Your task to perform on an android device: Search for a nice rug on Crate & Barrel Image 0: 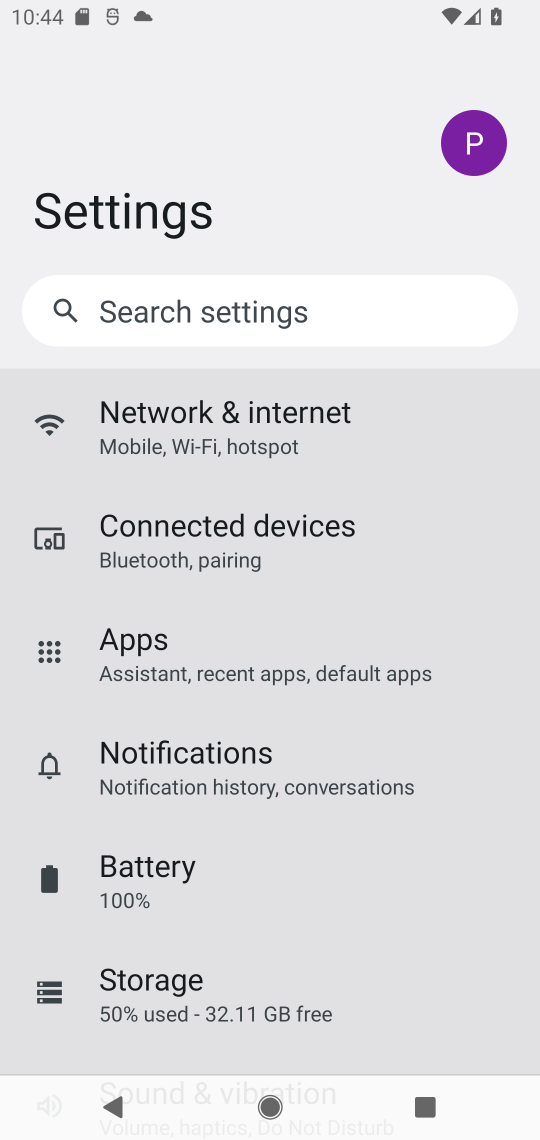
Step 0: press home button
Your task to perform on an android device: Search for a nice rug on Crate & Barrel Image 1: 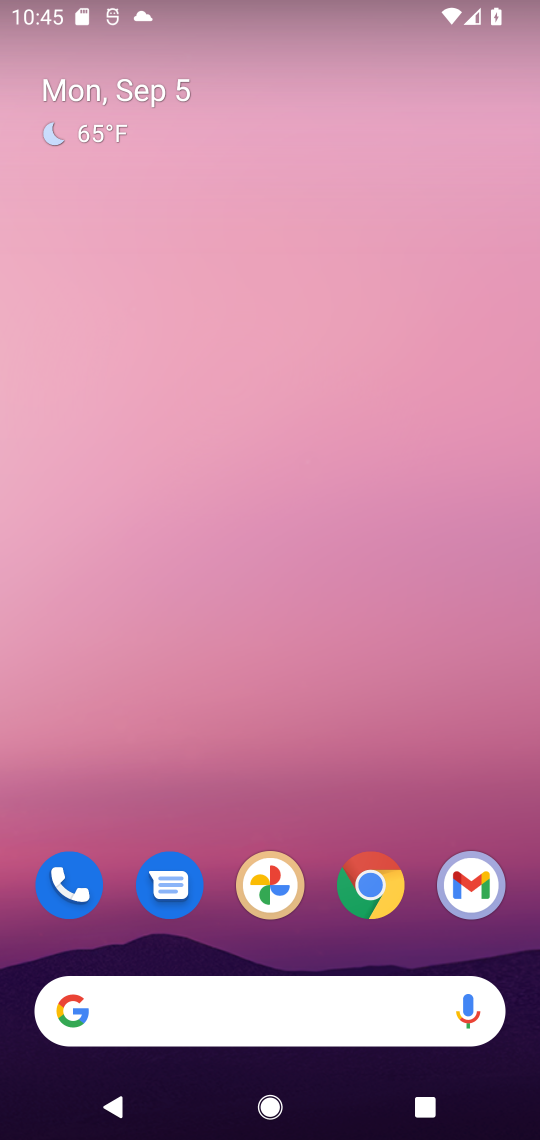
Step 1: click (375, 887)
Your task to perform on an android device: Search for a nice rug on Crate & Barrel Image 2: 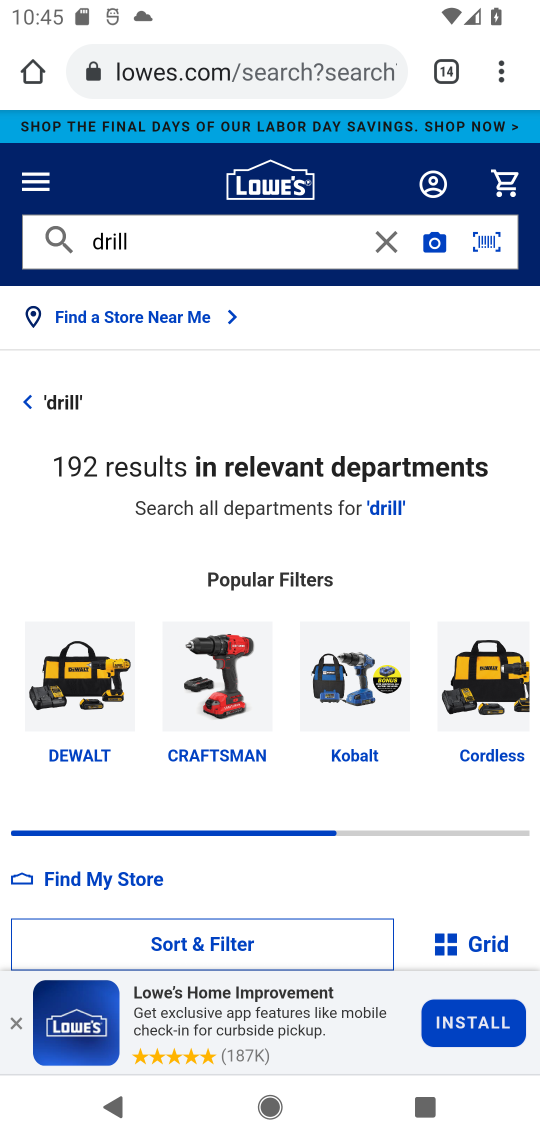
Step 2: click (500, 79)
Your task to perform on an android device: Search for a nice rug on Crate & Barrel Image 3: 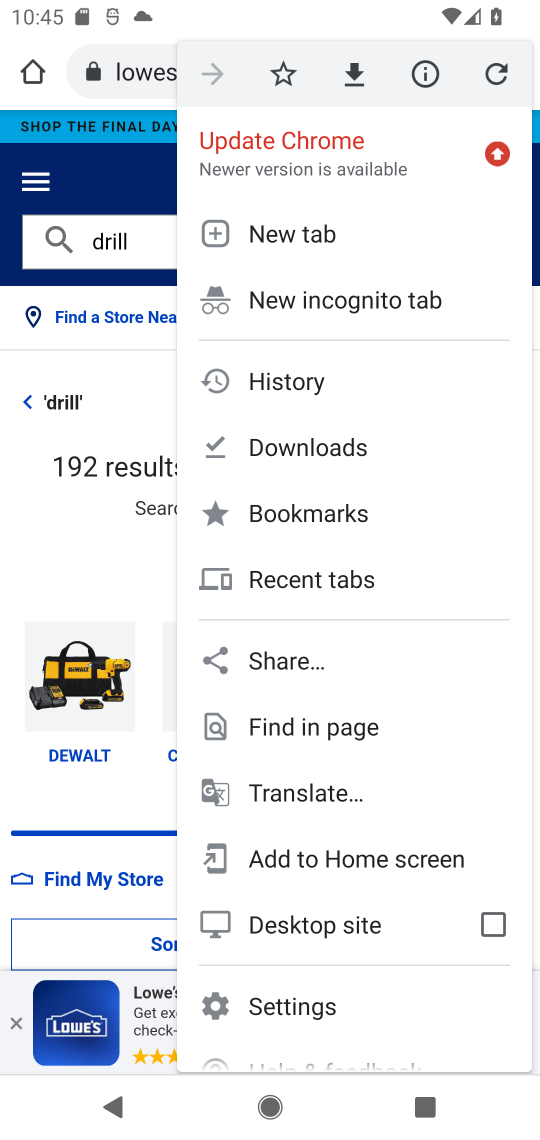
Step 3: click (319, 228)
Your task to perform on an android device: Search for a nice rug on Crate & Barrel Image 4: 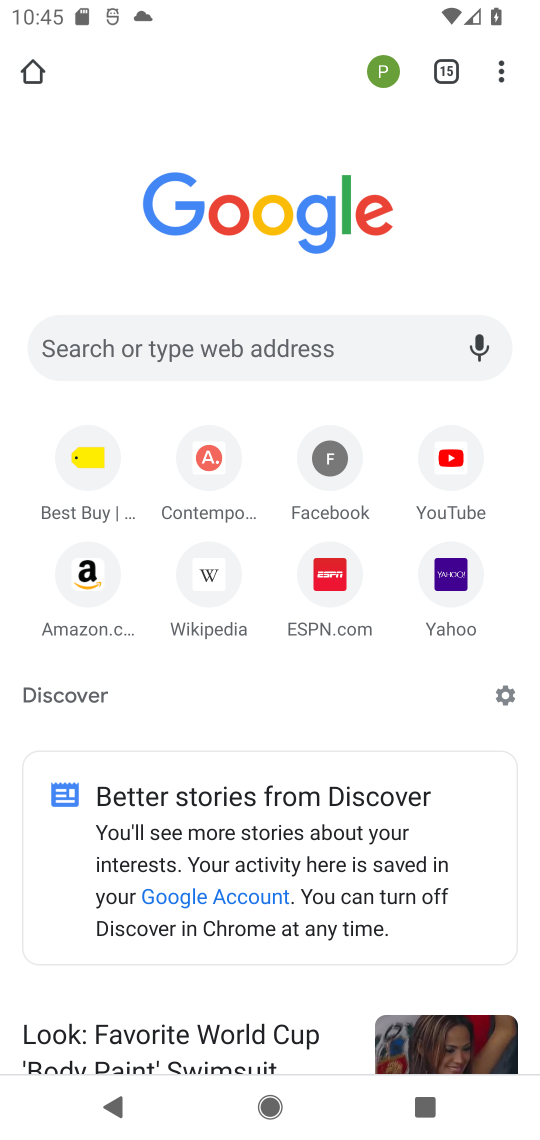
Step 4: click (254, 335)
Your task to perform on an android device: Search for a nice rug on Crate & Barrel Image 5: 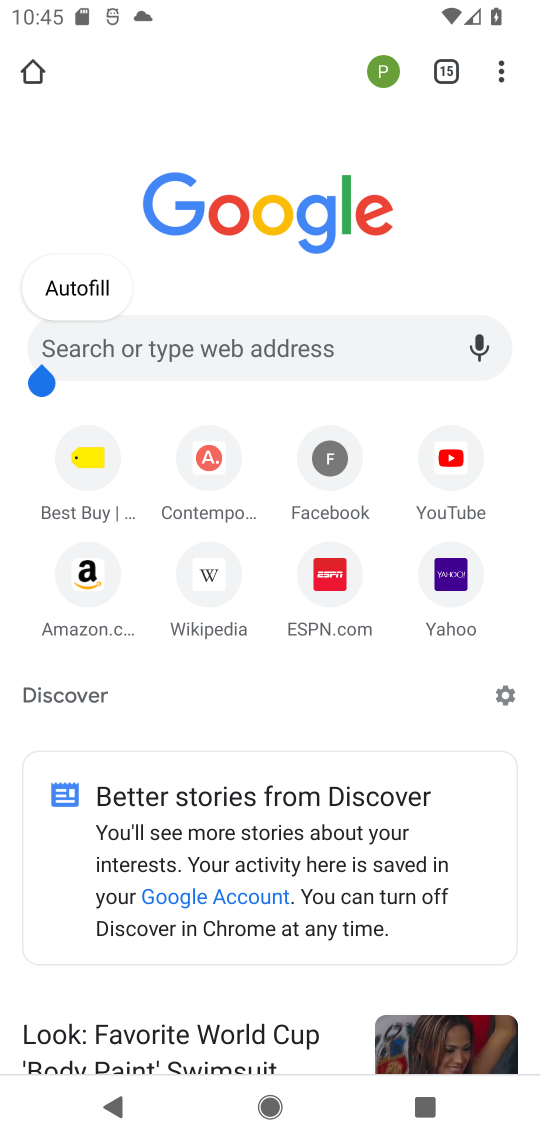
Step 5: click (278, 338)
Your task to perform on an android device: Search for a nice rug on Crate & Barrel Image 6: 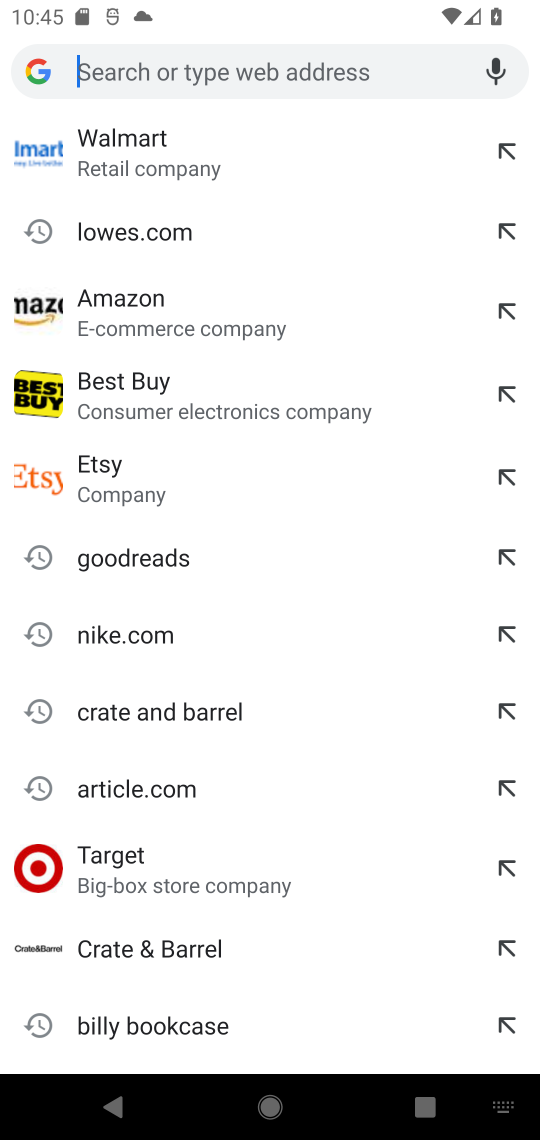
Step 6: type "Crate & Barrel"
Your task to perform on an android device: Search for a nice rug on Crate & Barrel Image 7: 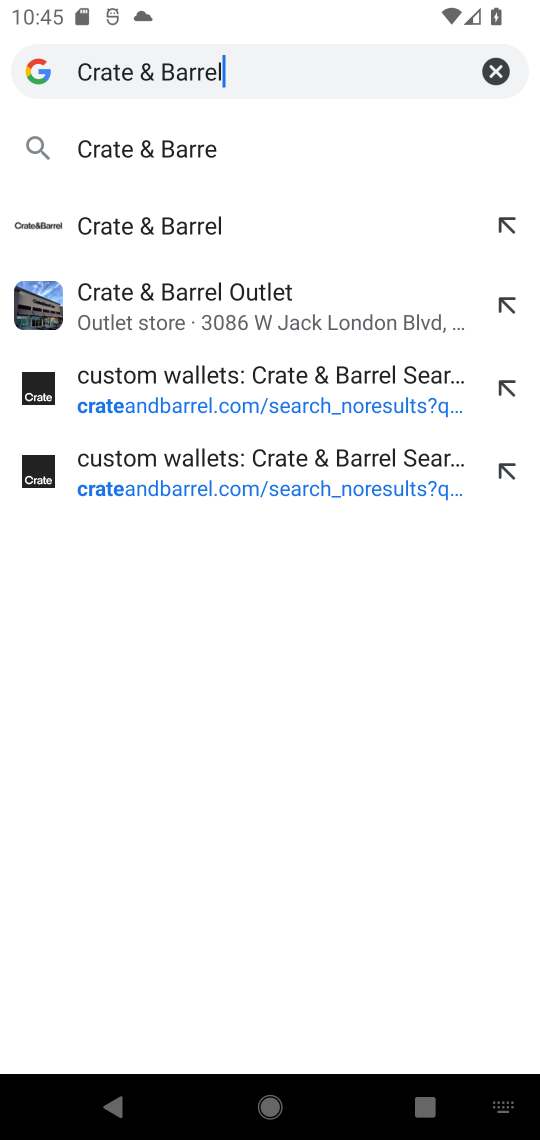
Step 7: type ""
Your task to perform on an android device: Search for a nice rug on Crate & Barrel Image 8: 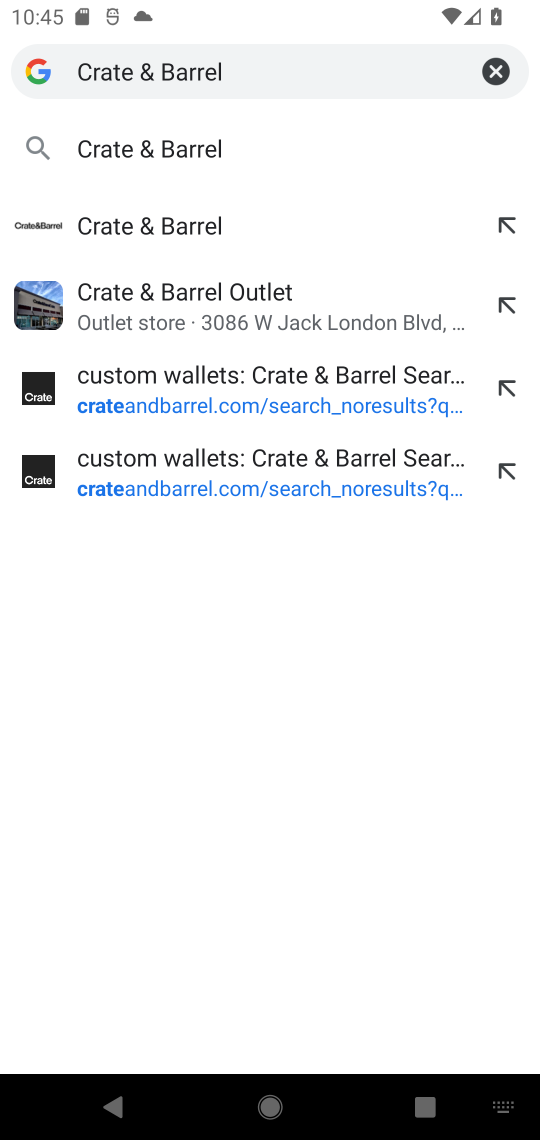
Step 8: click (146, 163)
Your task to perform on an android device: Search for a nice rug on Crate & Barrel Image 9: 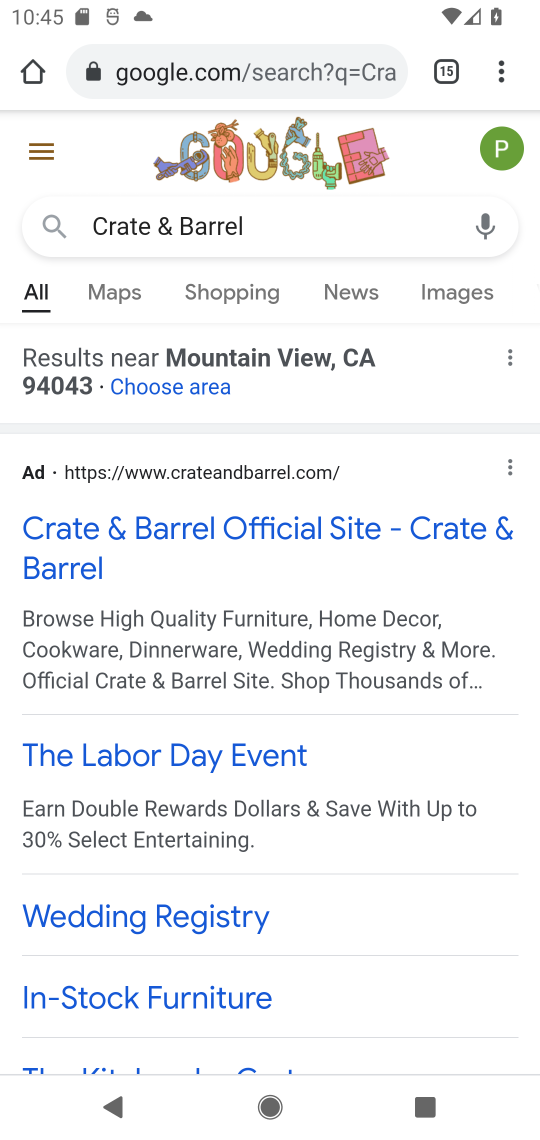
Step 9: click (181, 523)
Your task to perform on an android device: Search for a nice rug on Crate & Barrel Image 10: 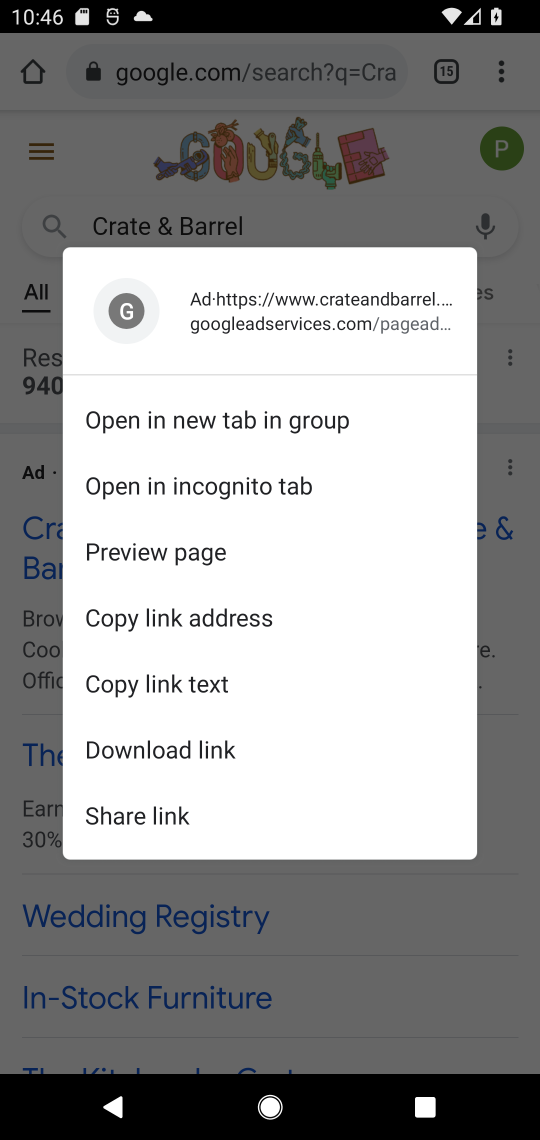
Step 10: click (410, 956)
Your task to perform on an android device: Search for a nice rug on Crate & Barrel Image 11: 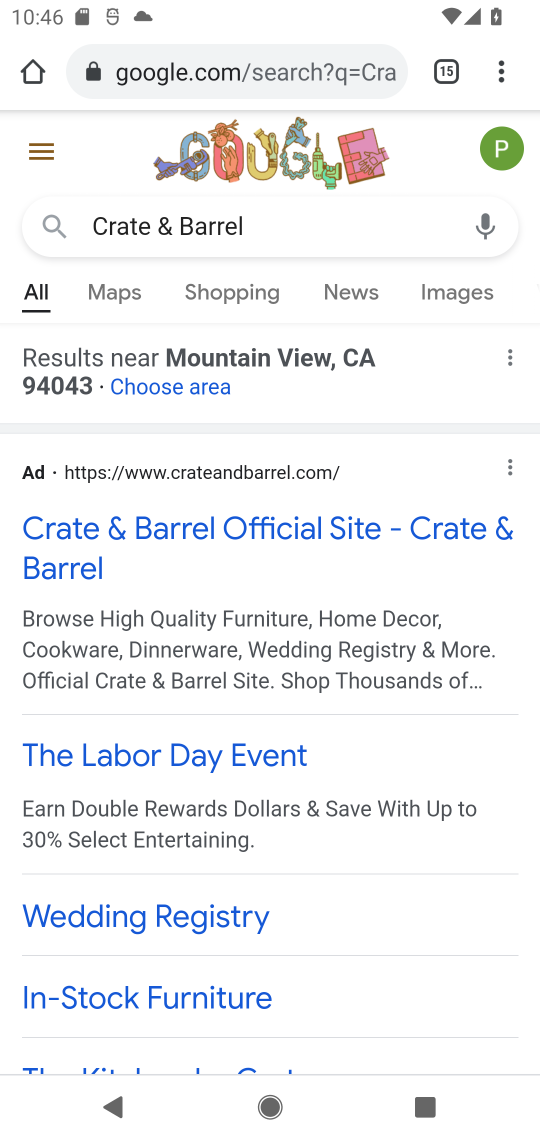
Step 11: click (112, 530)
Your task to perform on an android device: Search for a nice rug on Crate & Barrel Image 12: 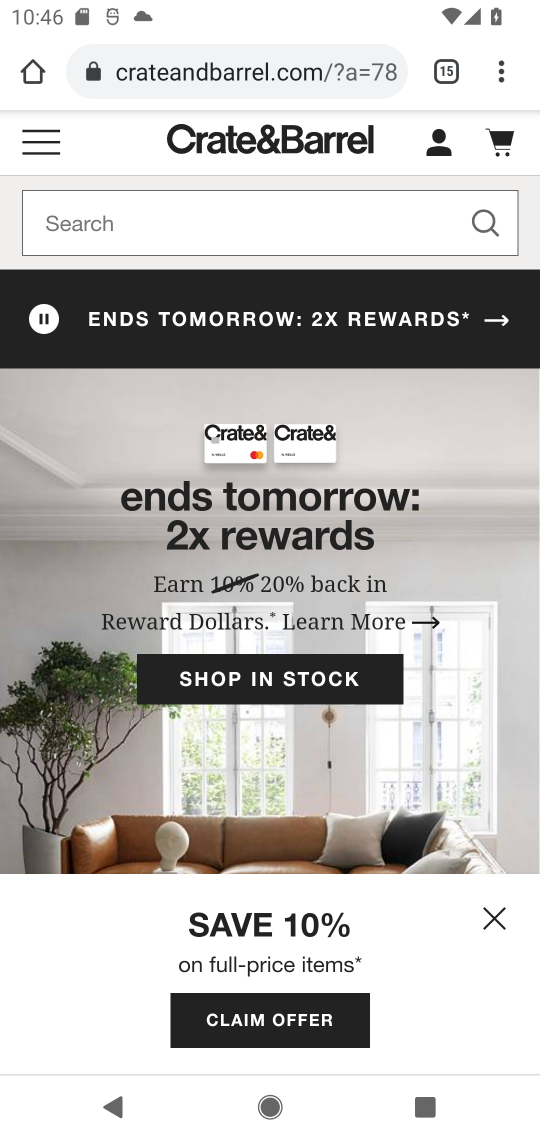
Step 12: click (181, 232)
Your task to perform on an android device: Search for a nice rug on Crate & Barrel Image 13: 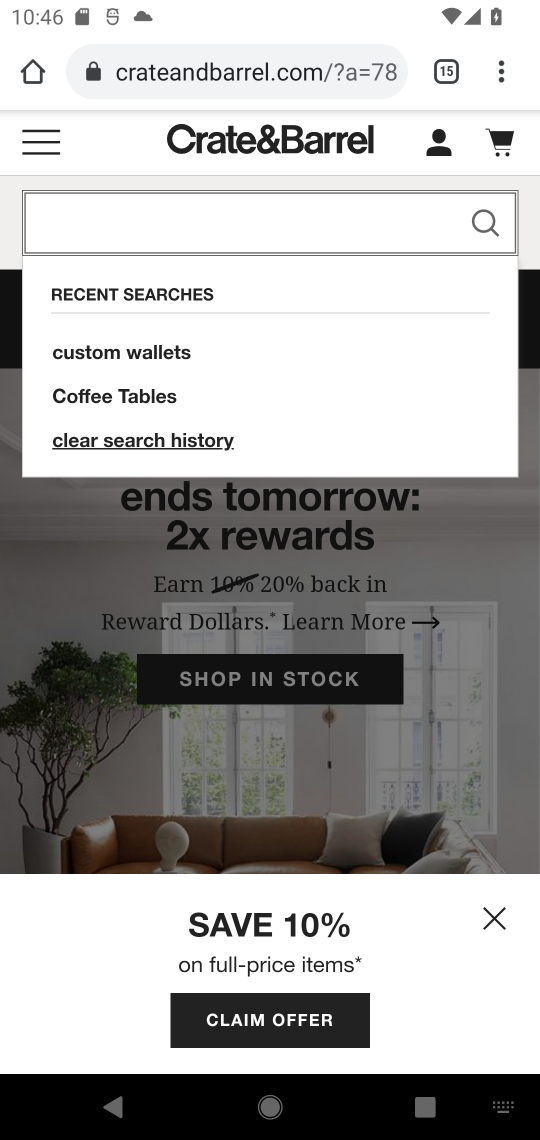
Step 13: type "nice rug"
Your task to perform on an android device: Search for a nice rug on Crate & Barrel Image 14: 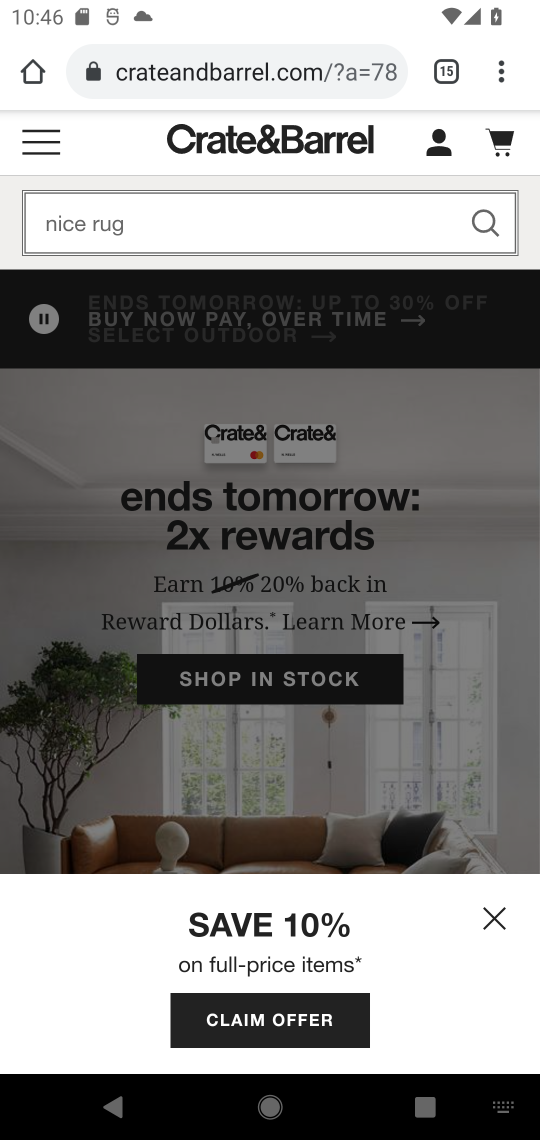
Step 14: click (477, 227)
Your task to perform on an android device: Search for a nice rug on Crate & Barrel Image 15: 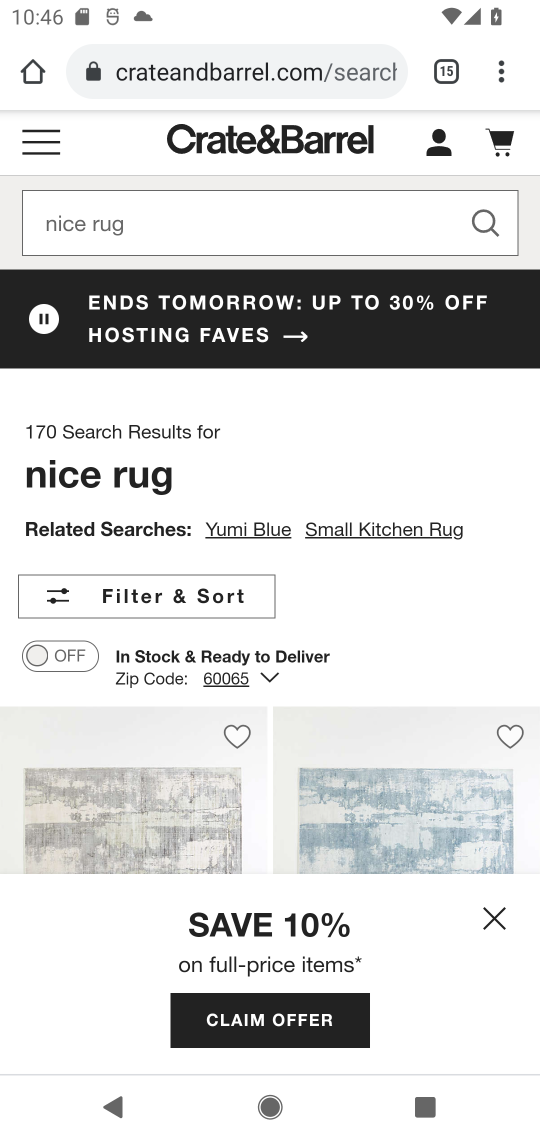
Step 15: task complete